Your task to perform on an android device: Open the calendar app, open the side menu, and click the "Day" option Image 0: 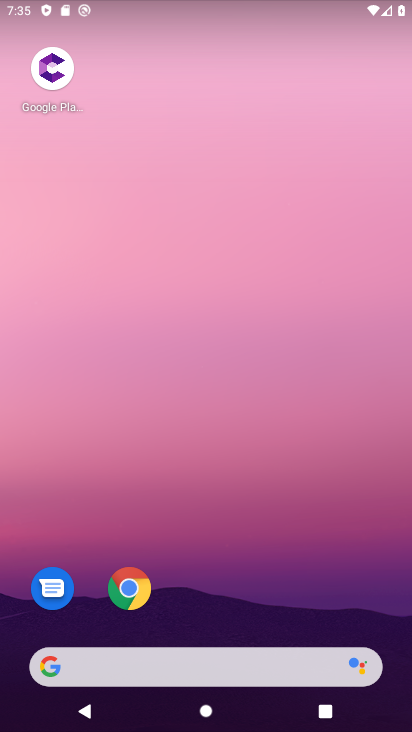
Step 0: drag from (398, 714) to (325, 141)
Your task to perform on an android device: Open the calendar app, open the side menu, and click the "Day" option Image 1: 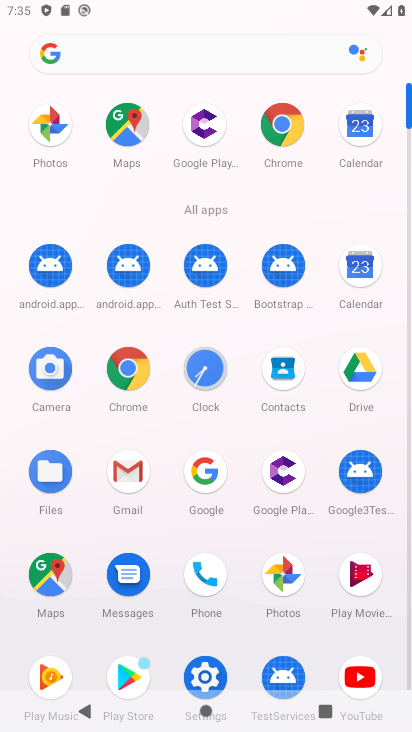
Step 1: click (359, 267)
Your task to perform on an android device: Open the calendar app, open the side menu, and click the "Day" option Image 2: 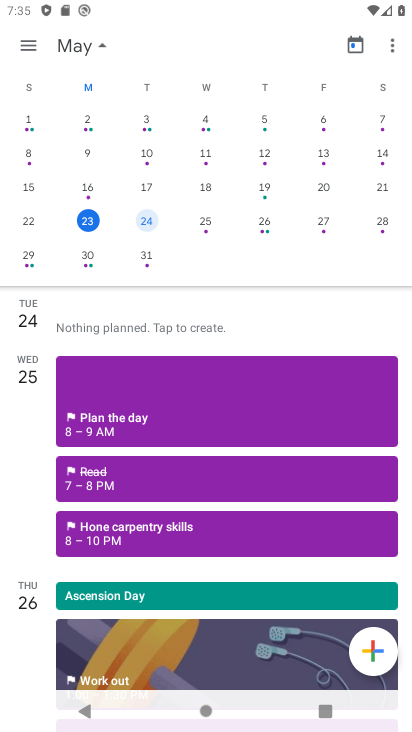
Step 2: click (29, 39)
Your task to perform on an android device: Open the calendar app, open the side menu, and click the "Day" option Image 3: 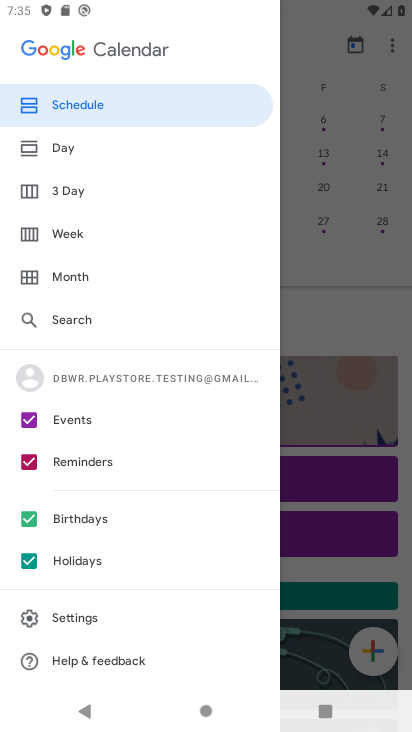
Step 3: click (52, 144)
Your task to perform on an android device: Open the calendar app, open the side menu, and click the "Day" option Image 4: 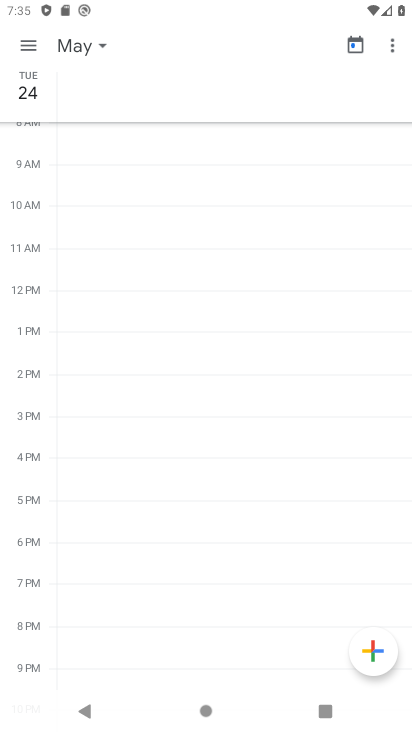
Step 4: task complete